Your task to perform on an android device: Go to sound settings Image 0: 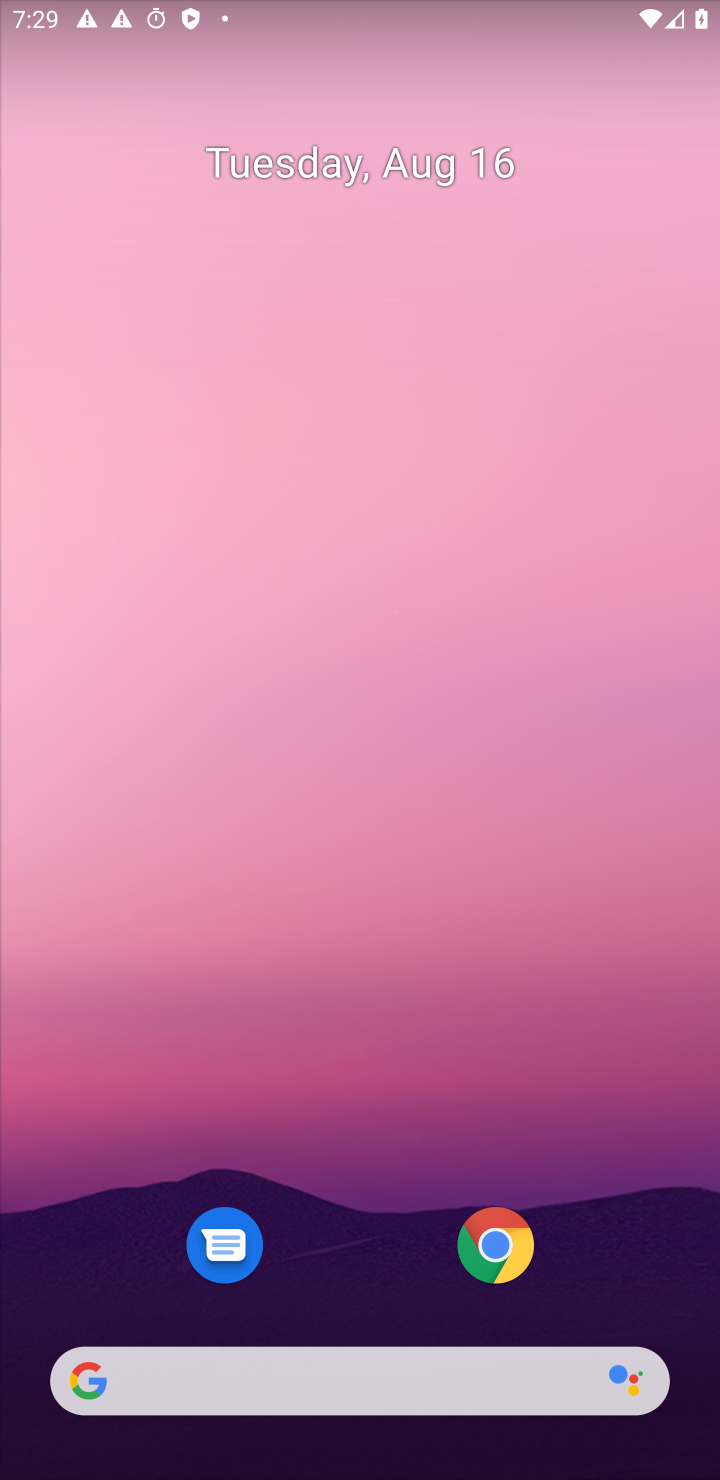
Step 0: press home button
Your task to perform on an android device: Go to sound settings Image 1: 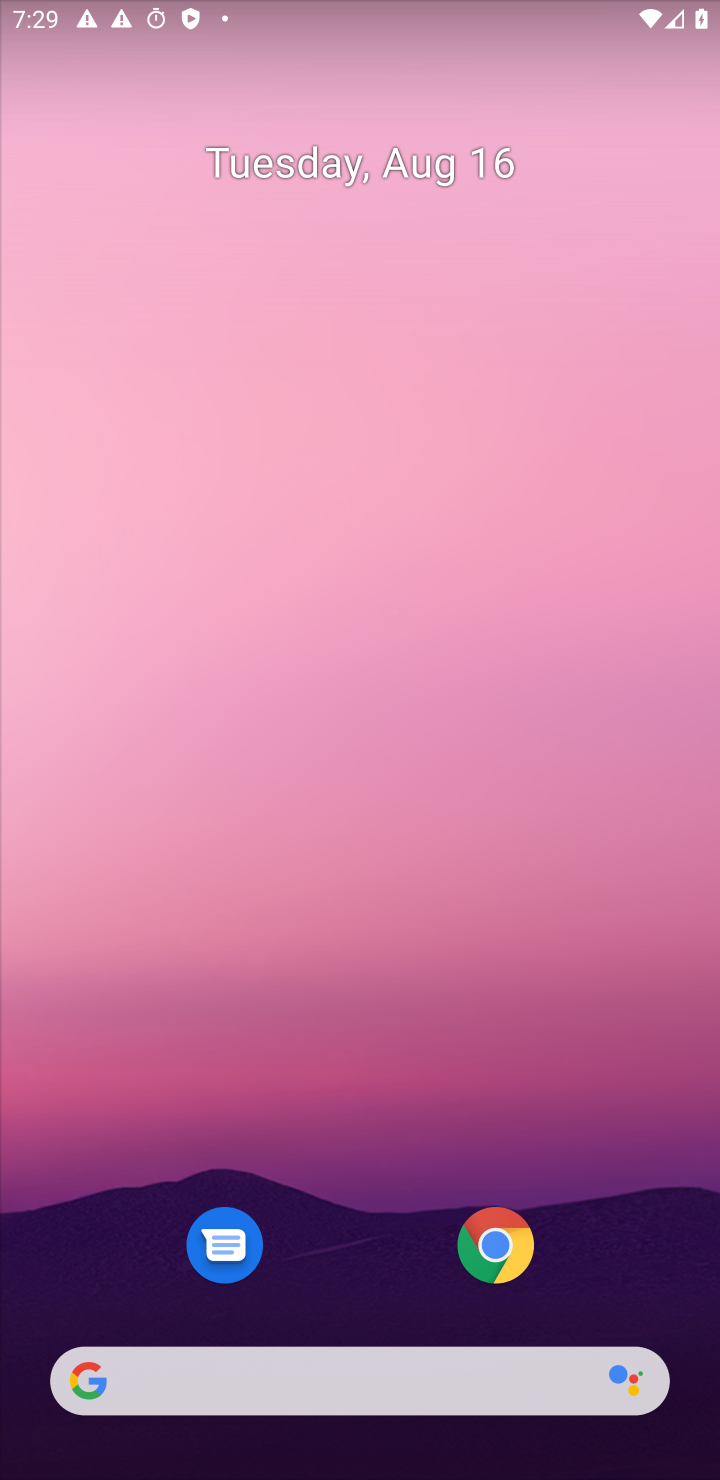
Step 1: drag from (370, 1226) to (414, 81)
Your task to perform on an android device: Go to sound settings Image 2: 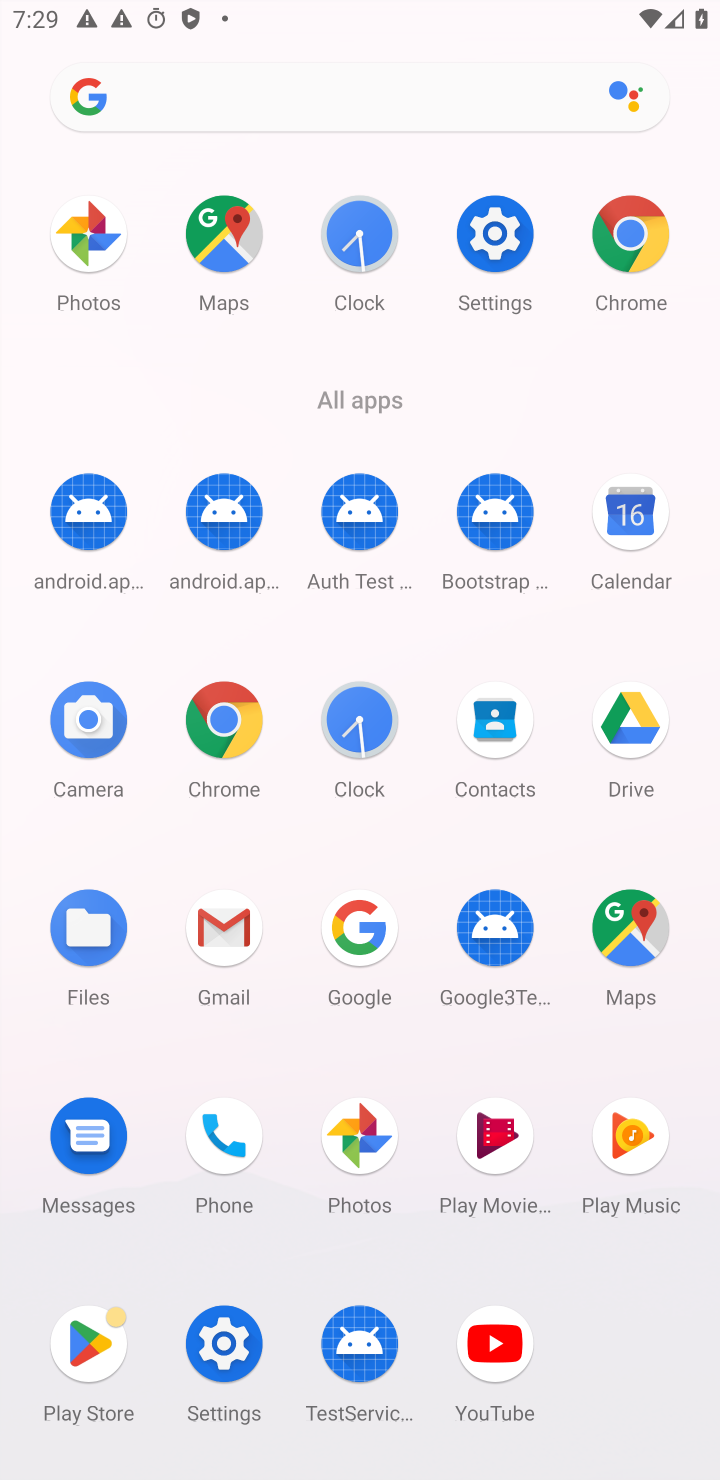
Step 2: click (498, 218)
Your task to perform on an android device: Go to sound settings Image 3: 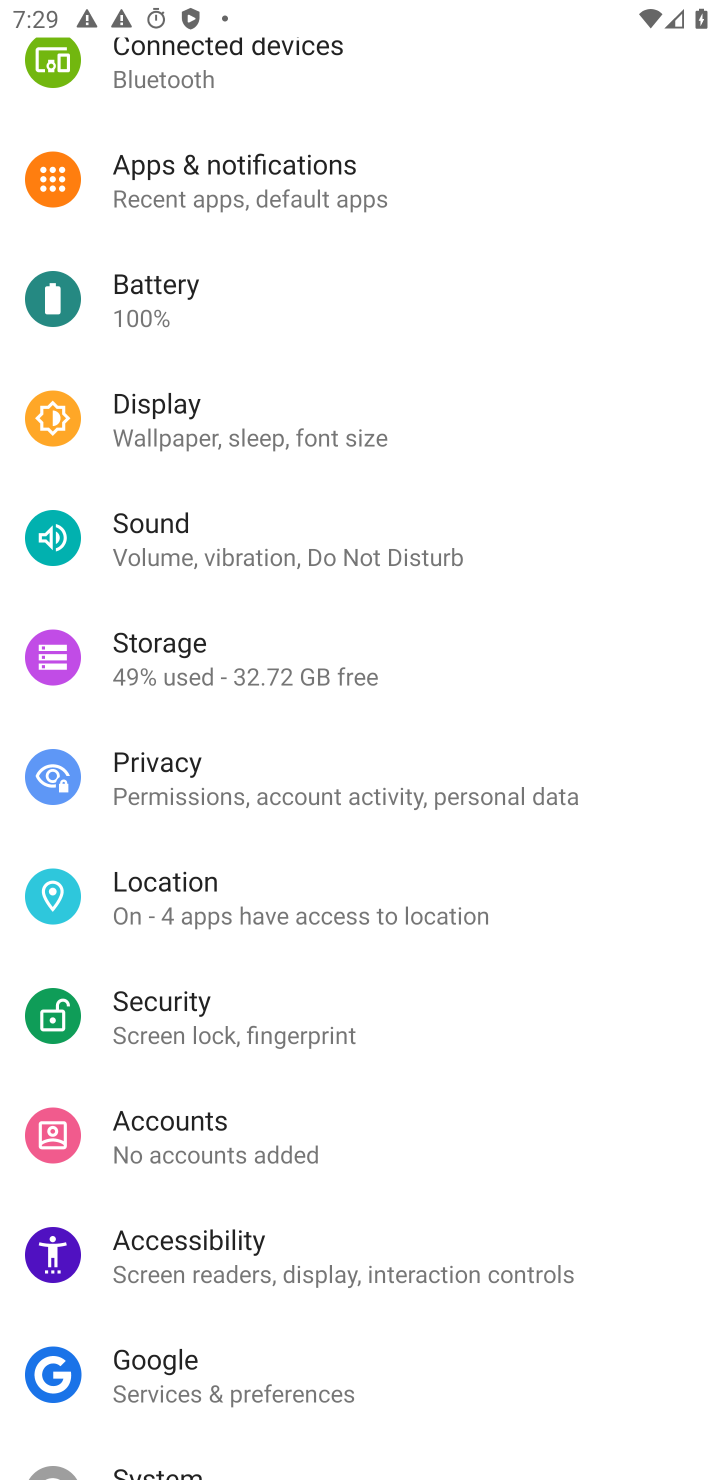
Step 3: click (271, 543)
Your task to perform on an android device: Go to sound settings Image 4: 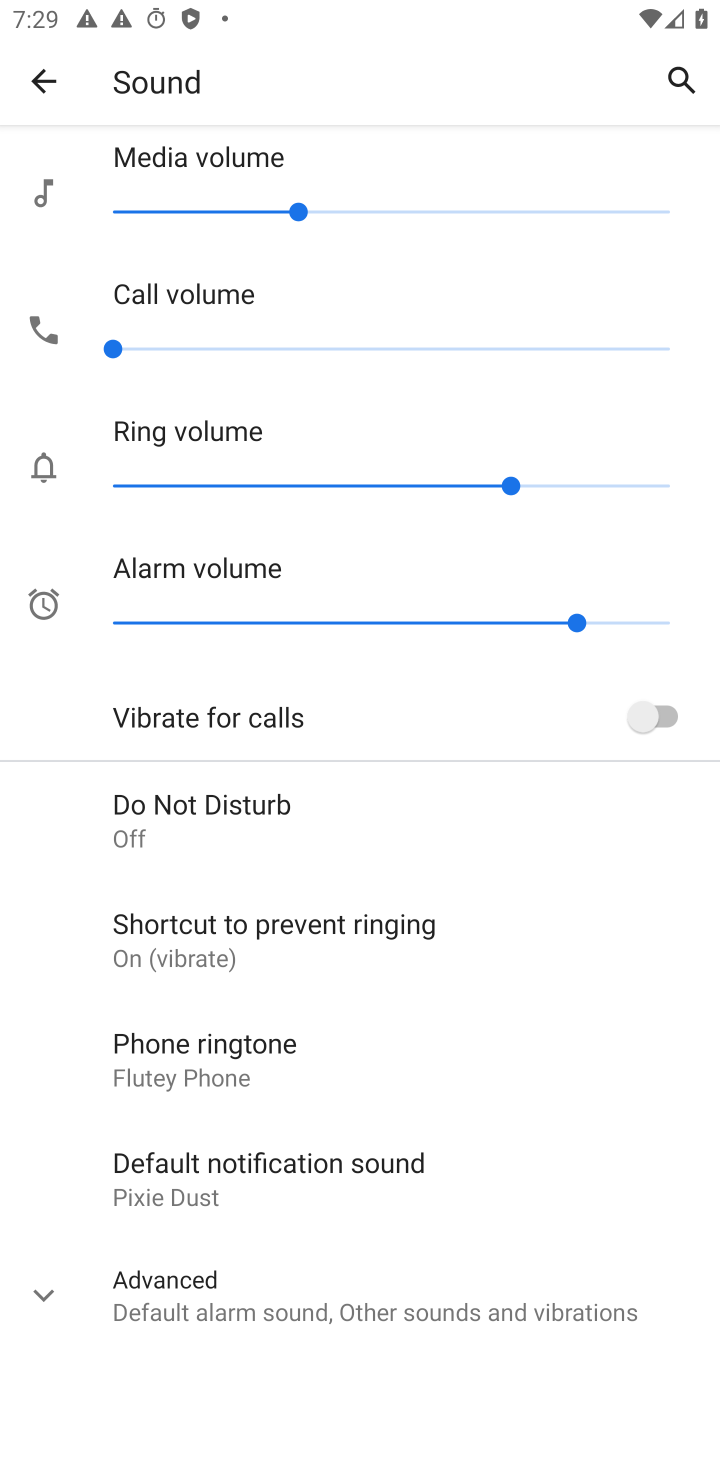
Step 4: task complete